Your task to perform on an android device: Go to Android settings Image 0: 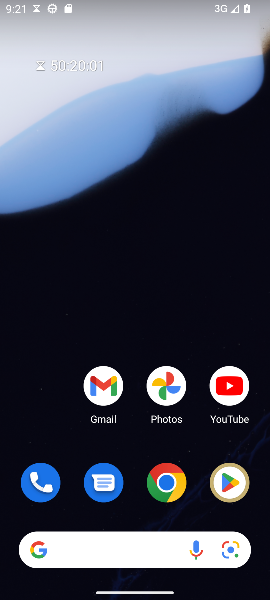
Step 0: drag from (80, 532) to (138, 45)
Your task to perform on an android device: Go to Android settings Image 1: 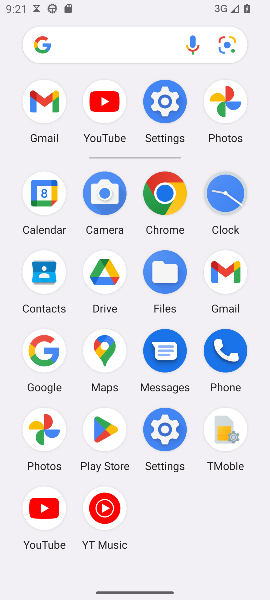
Step 1: click (163, 98)
Your task to perform on an android device: Go to Android settings Image 2: 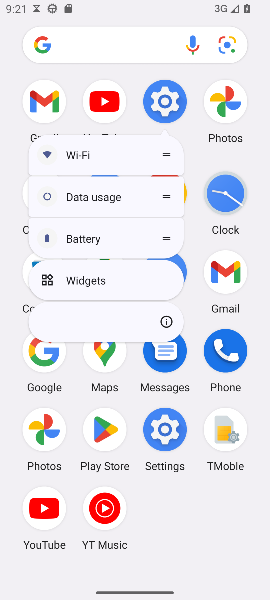
Step 2: click (163, 98)
Your task to perform on an android device: Go to Android settings Image 3: 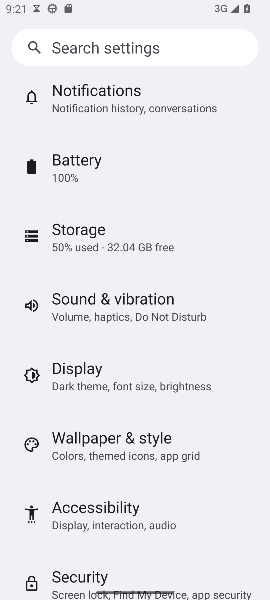
Step 3: task complete